Your task to perform on an android device: What is the recent news? Image 0: 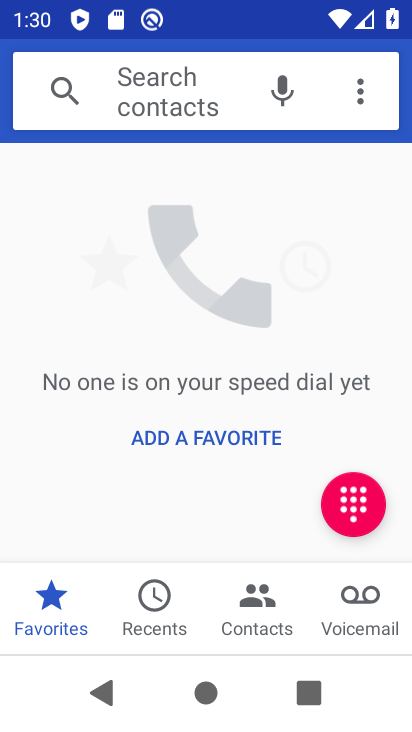
Step 0: press home button
Your task to perform on an android device: What is the recent news? Image 1: 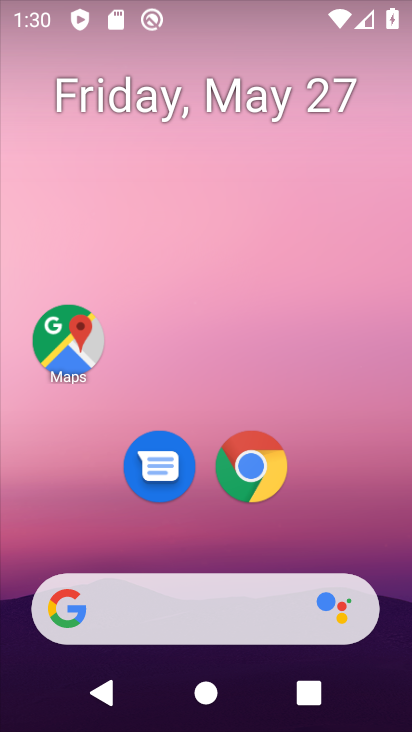
Step 1: drag from (15, 216) to (335, 135)
Your task to perform on an android device: What is the recent news? Image 2: 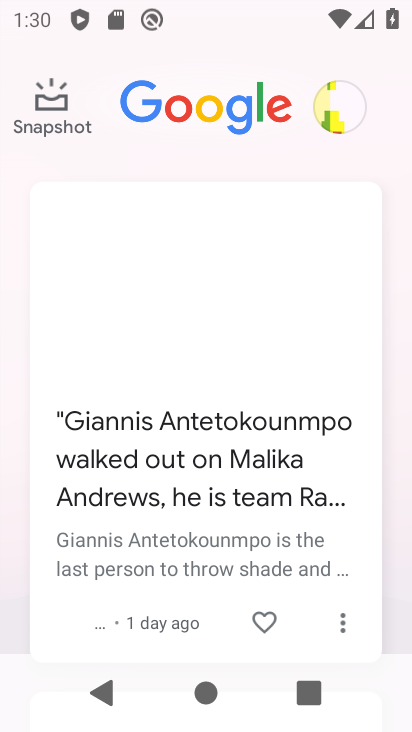
Step 2: click (221, 424)
Your task to perform on an android device: What is the recent news? Image 3: 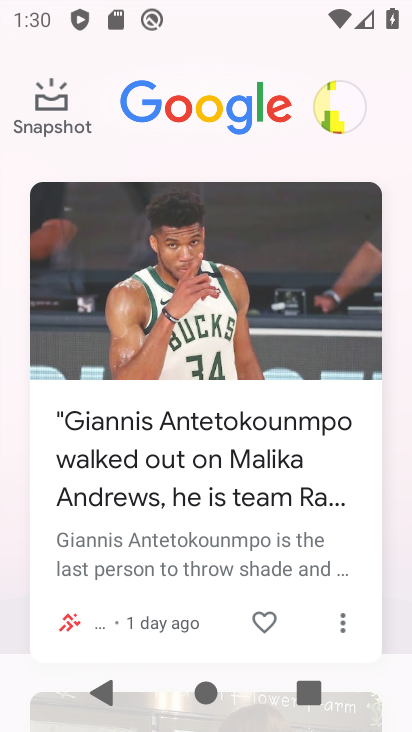
Step 3: task complete